Your task to perform on an android device: Search for razer blade on costco, select the first entry, and add it to the cart. Image 0: 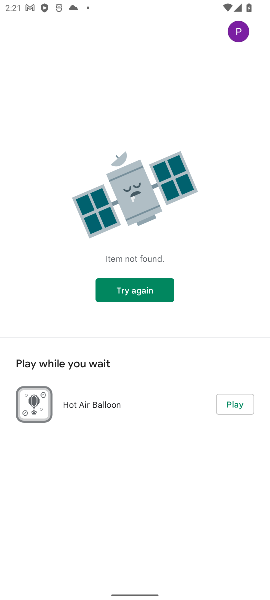
Step 0: press home button
Your task to perform on an android device: Search for razer blade on costco, select the first entry, and add it to the cart. Image 1: 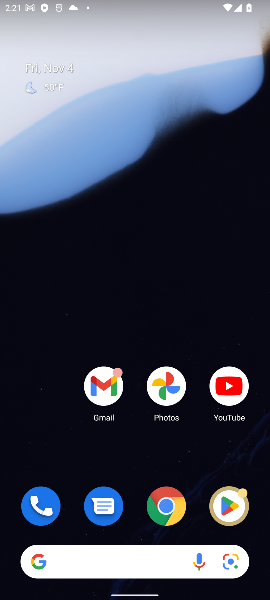
Step 1: drag from (131, 474) to (111, 9)
Your task to perform on an android device: Search for razer blade on costco, select the first entry, and add it to the cart. Image 2: 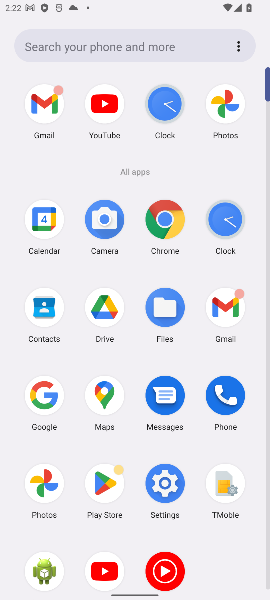
Step 2: click (161, 220)
Your task to perform on an android device: Search for razer blade on costco, select the first entry, and add it to the cart. Image 3: 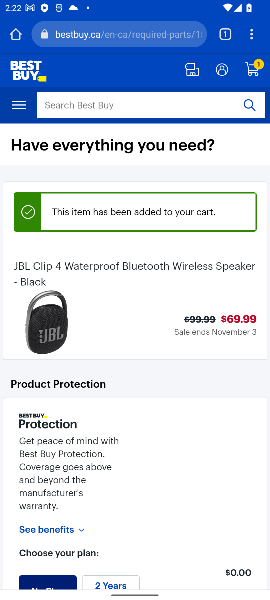
Step 3: click (141, 35)
Your task to perform on an android device: Search for razer blade on costco, select the first entry, and add it to the cart. Image 4: 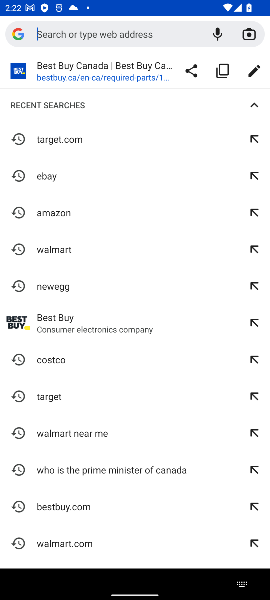
Step 4: type "costco.com"
Your task to perform on an android device: Search for razer blade on costco, select the first entry, and add it to the cart. Image 5: 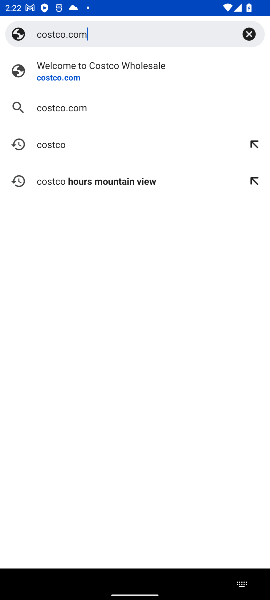
Step 5: press enter
Your task to perform on an android device: Search for razer blade on costco, select the first entry, and add it to the cart. Image 6: 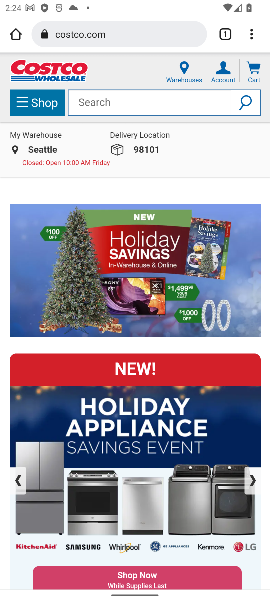
Step 6: click (146, 106)
Your task to perform on an android device: Search for razer blade on costco, select the first entry, and add it to the cart. Image 7: 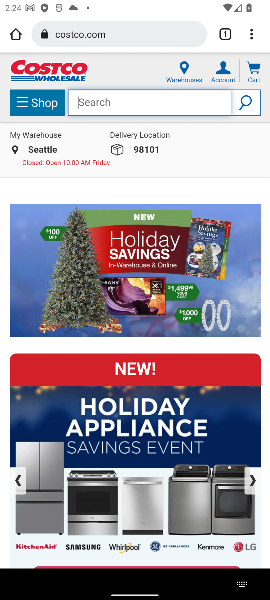
Step 7: type "razer blade"
Your task to perform on an android device: Search for razer blade on costco, select the first entry, and add it to the cart. Image 8: 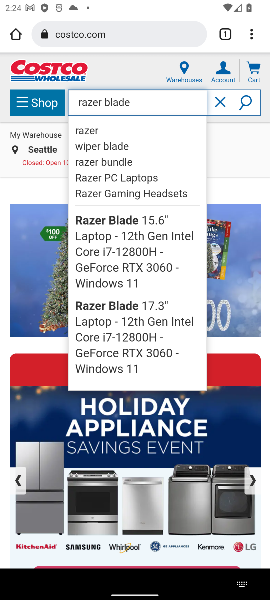
Step 8: press enter
Your task to perform on an android device: Search for razer blade on costco, select the first entry, and add it to the cart. Image 9: 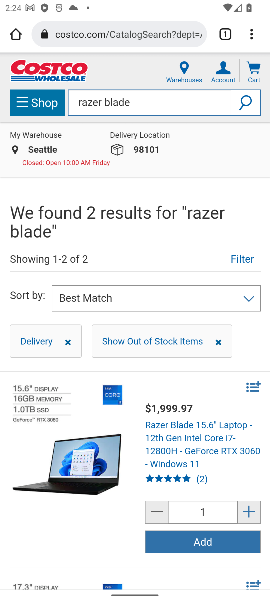
Step 9: drag from (126, 459) to (118, 307)
Your task to perform on an android device: Search for razer blade on costco, select the first entry, and add it to the cart. Image 10: 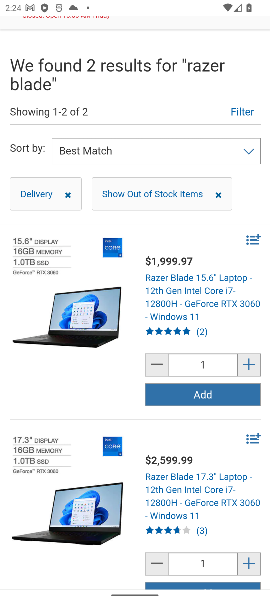
Step 10: click (211, 399)
Your task to perform on an android device: Search for razer blade on costco, select the first entry, and add it to the cart. Image 11: 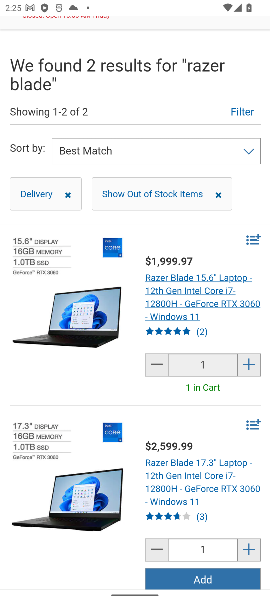
Step 11: task complete